Your task to perform on an android device: change your default location settings in chrome Image 0: 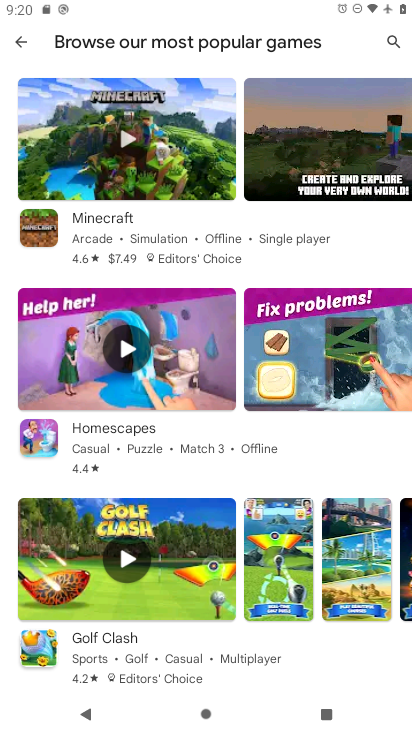
Step 0: press home button
Your task to perform on an android device: change your default location settings in chrome Image 1: 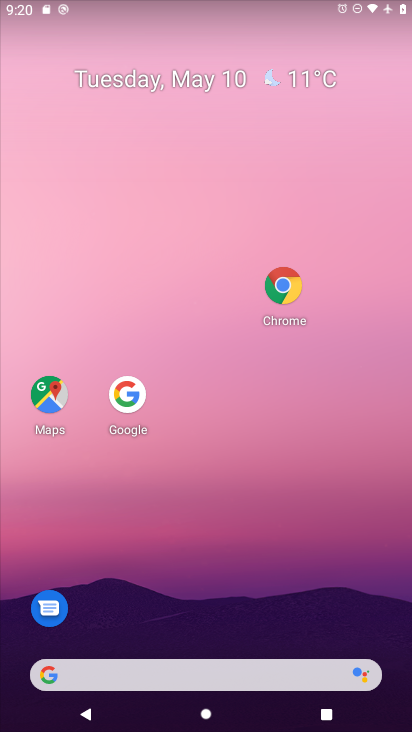
Step 1: drag from (215, 501) to (291, 232)
Your task to perform on an android device: change your default location settings in chrome Image 2: 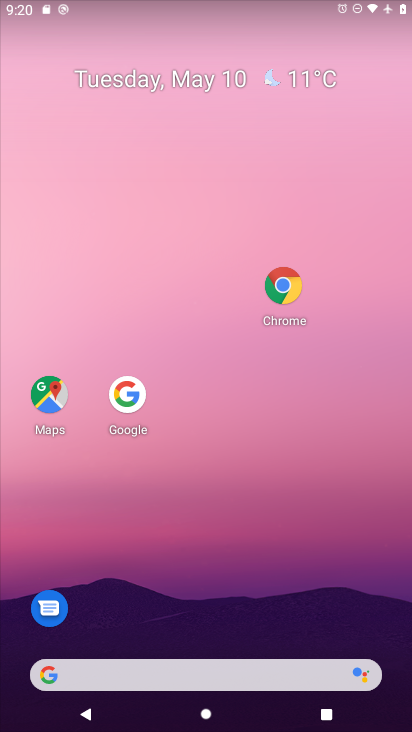
Step 2: click (290, 292)
Your task to perform on an android device: change your default location settings in chrome Image 3: 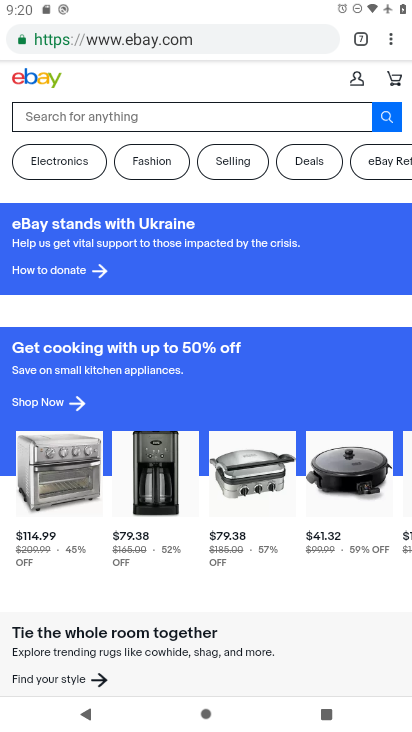
Step 3: drag from (385, 37) to (281, 480)
Your task to perform on an android device: change your default location settings in chrome Image 4: 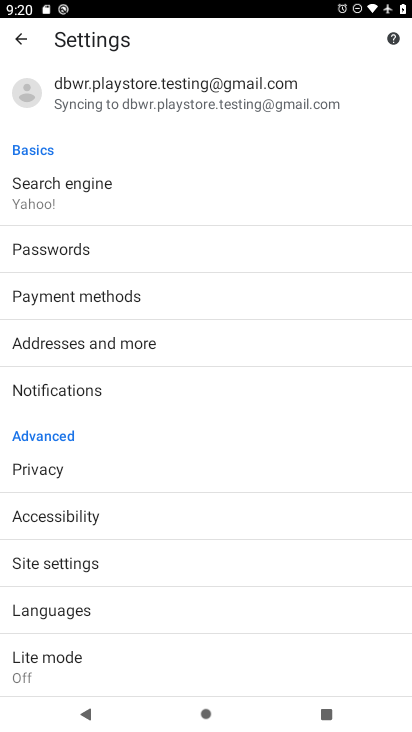
Step 4: click (52, 559)
Your task to perform on an android device: change your default location settings in chrome Image 5: 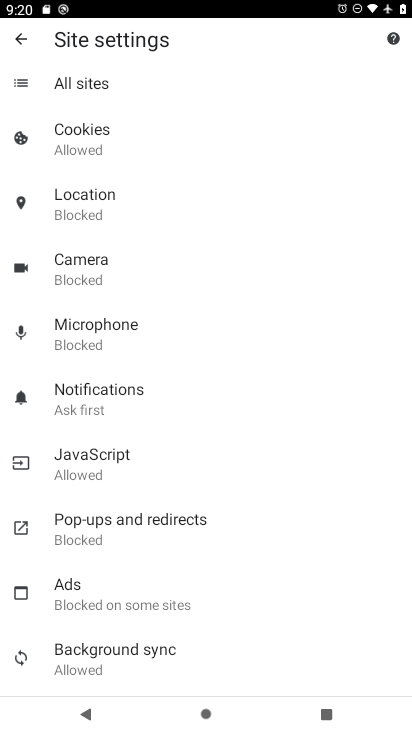
Step 5: click (80, 200)
Your task to perform on an android device: change your default location settings in chrome Image 6: 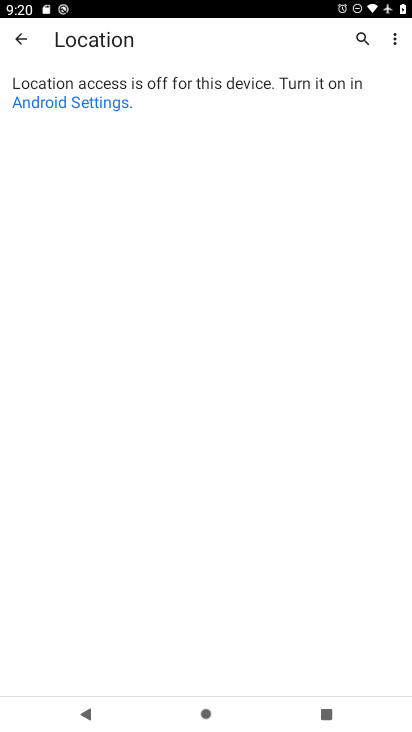
Step 6: click (117, 103)
Your task to perform on an android device: change your default location settings in chrome Image 7: 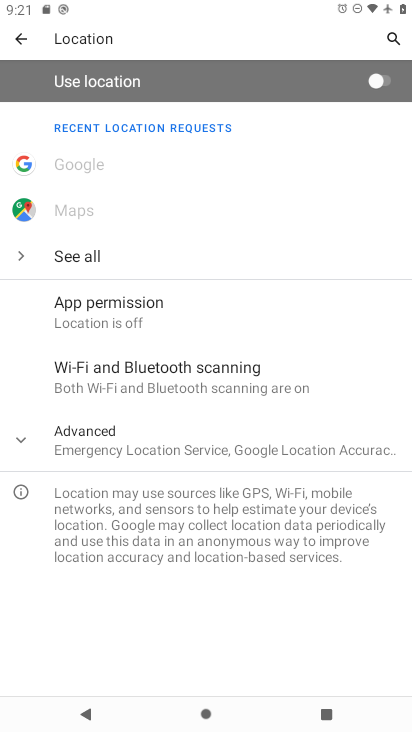
Step 7: click (387, 81)
Your task to perform on an android device: change your default location settings in chrome Image 8: 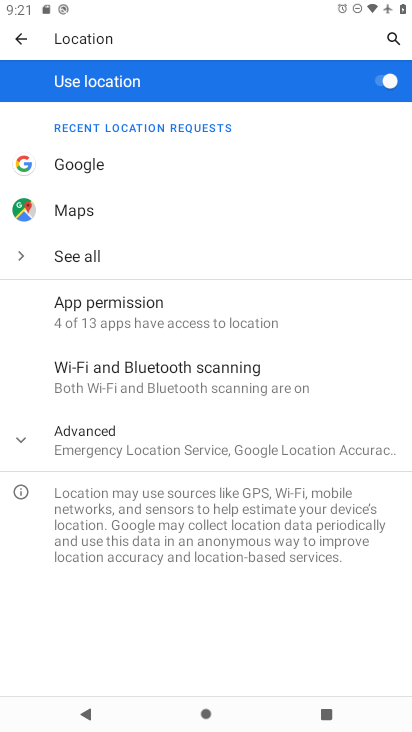
Step 8: task complete